Your task to perform on an android device: Go to CNN.com Image 0: 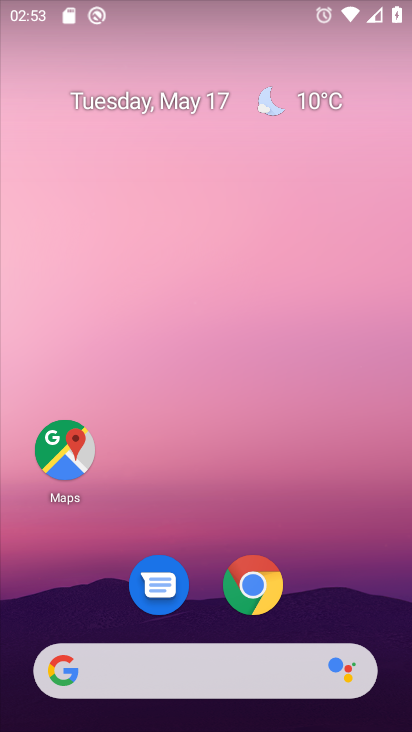
Step 0: click (243, 674)
Your task to perform on an android device: Go to CNN.com Image 1: 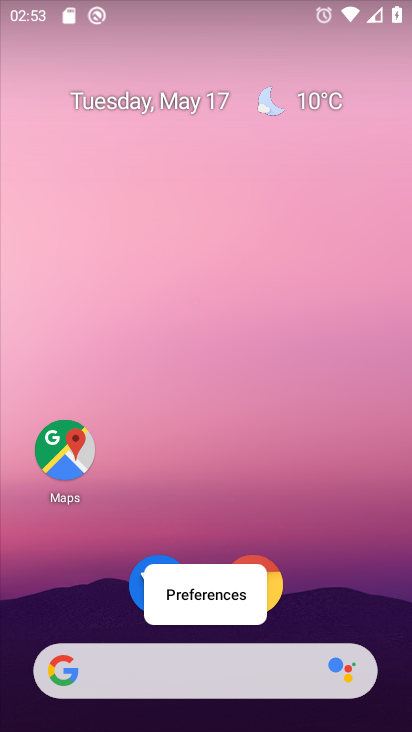
Step 1: click (277, 668)
Your task to perform on an android device: Go to CNN.com Image 2: 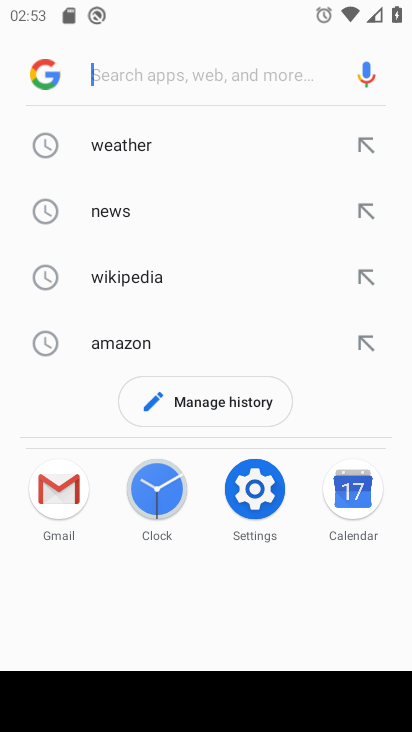
Step 2: type "cnn.com"
Your task to perform on an android device: Go to CNN.com Image 3: 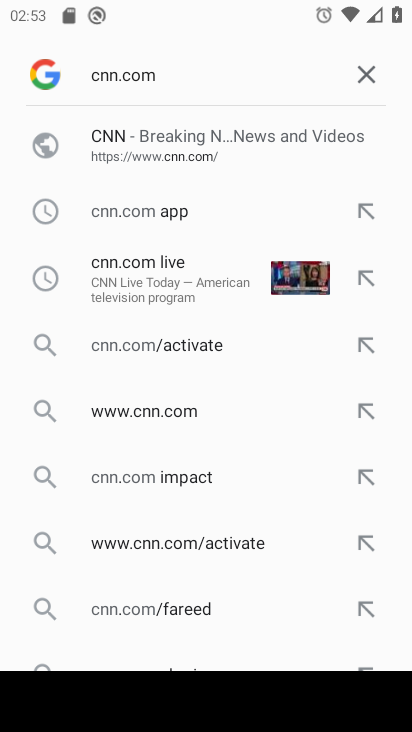
Step 3: click (107, 140)
Your task to perform on an android device: Go to CNN.com Image 4: 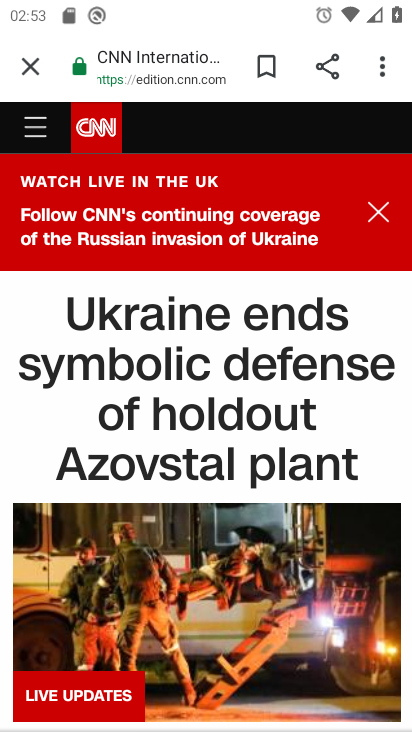
Step 4: task complete